Your task to perform on an android device: Open settings Image 0: 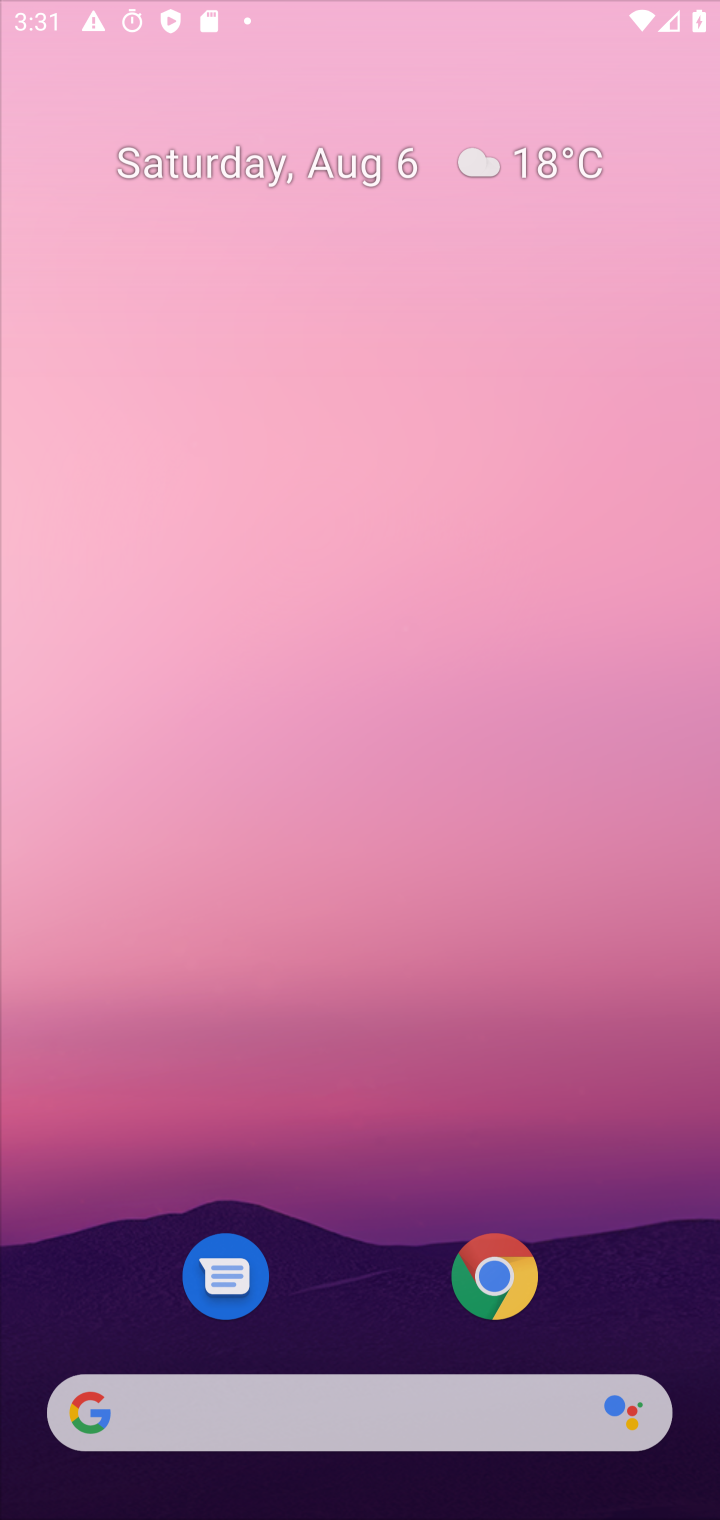
Step 0: press home button
Your task to perform on an android device: Open settings Image 1: 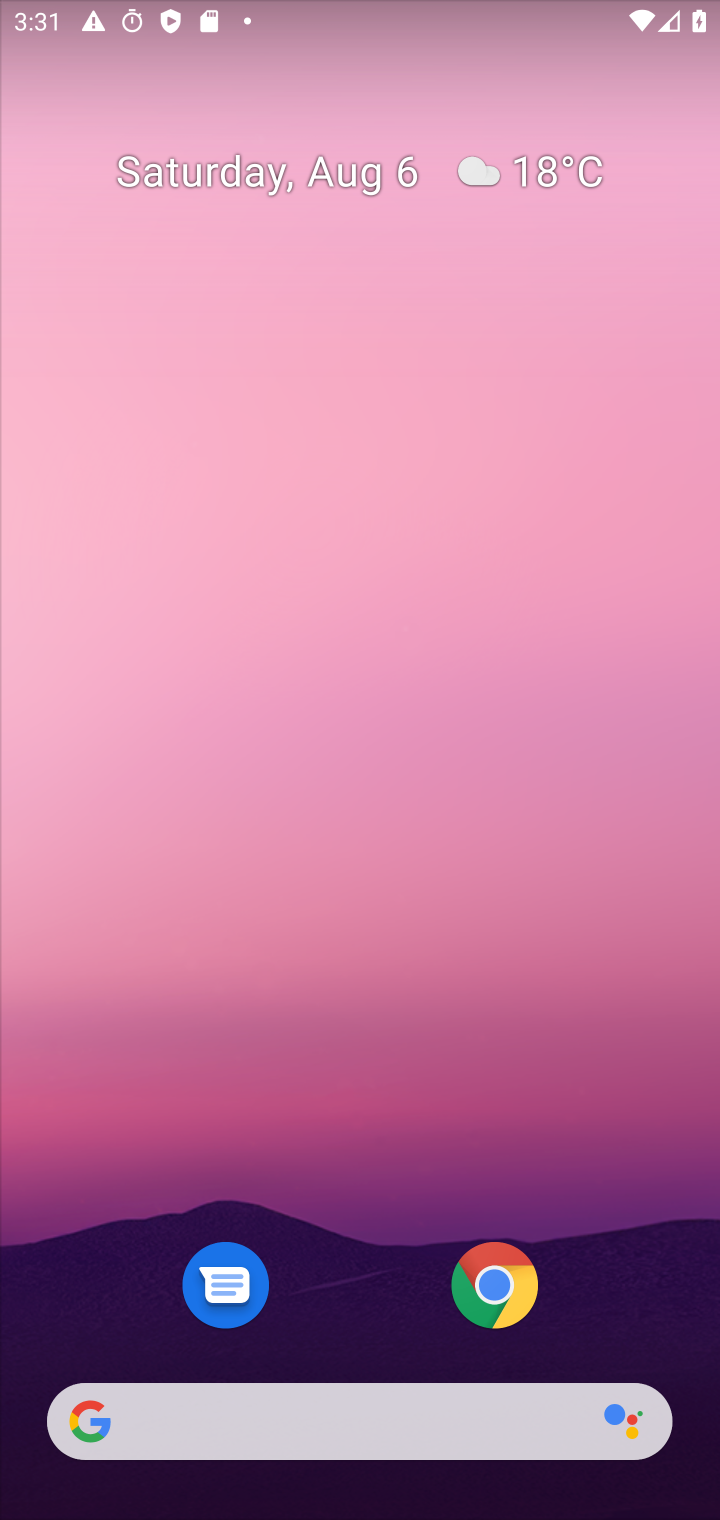
Step 1: drag from (362, 1325) to (336, 278)
Your task to perform on an android device: Open settings Image 2: 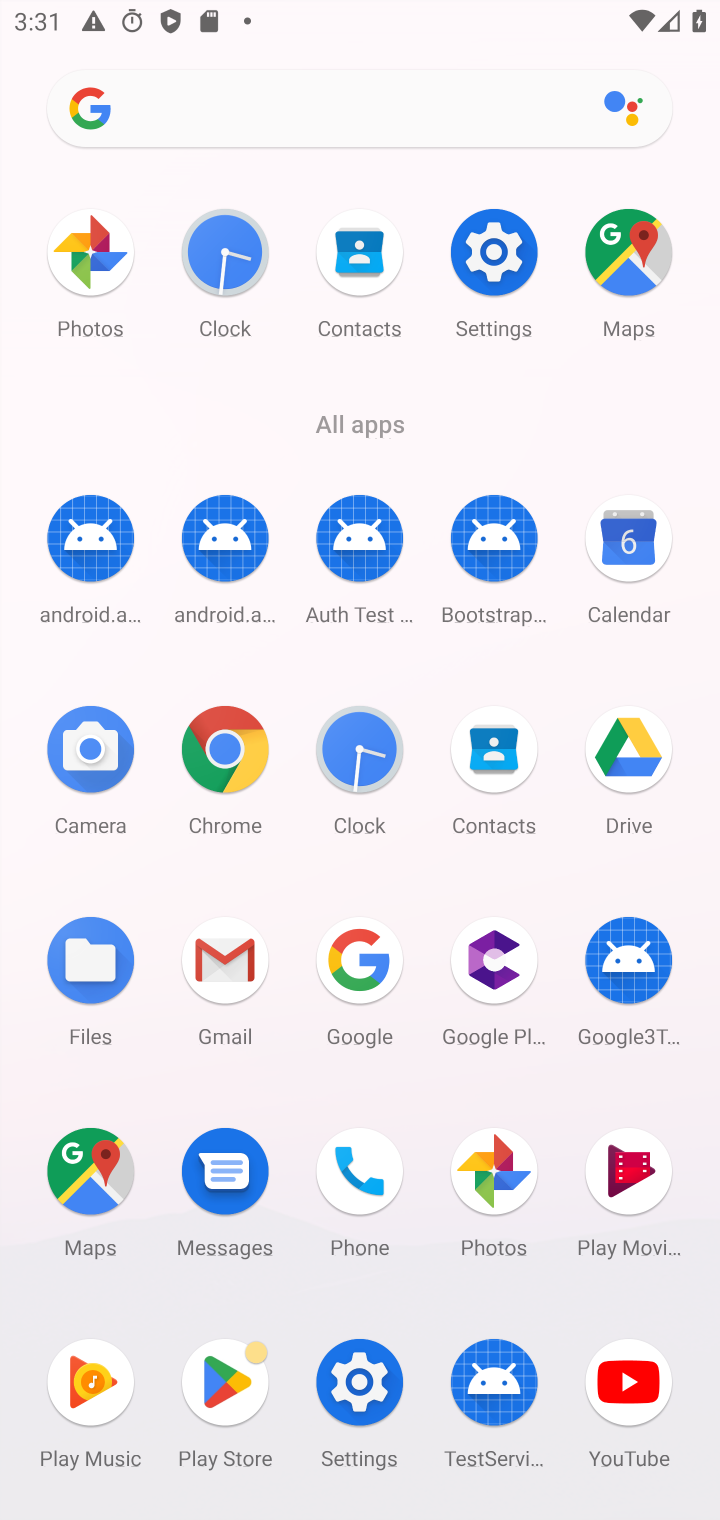
Step 2: click (486, 251)
Your task to perform on an android device: Open settings Image 3: 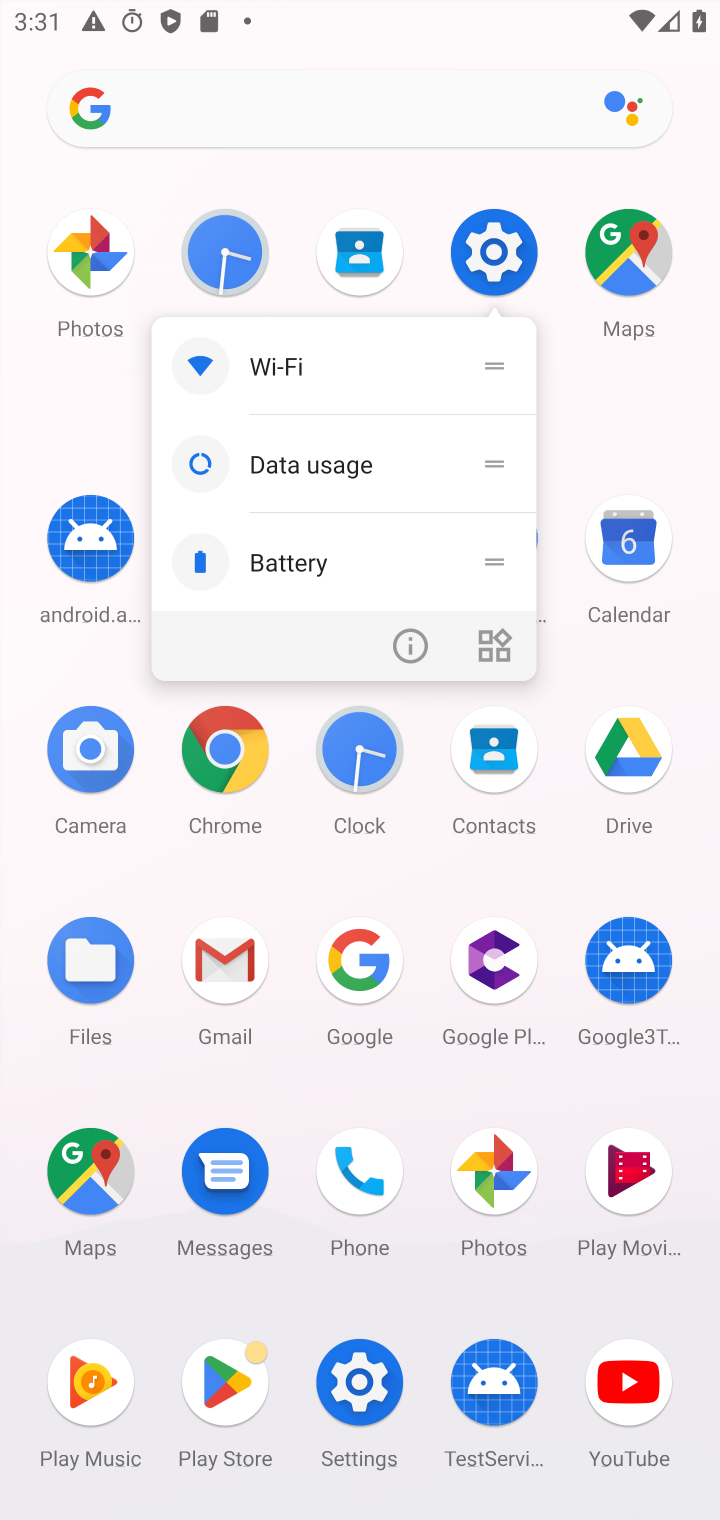
Step 3: click (352, 1367)
Your task to perform on an android device: Open settings Image 4: 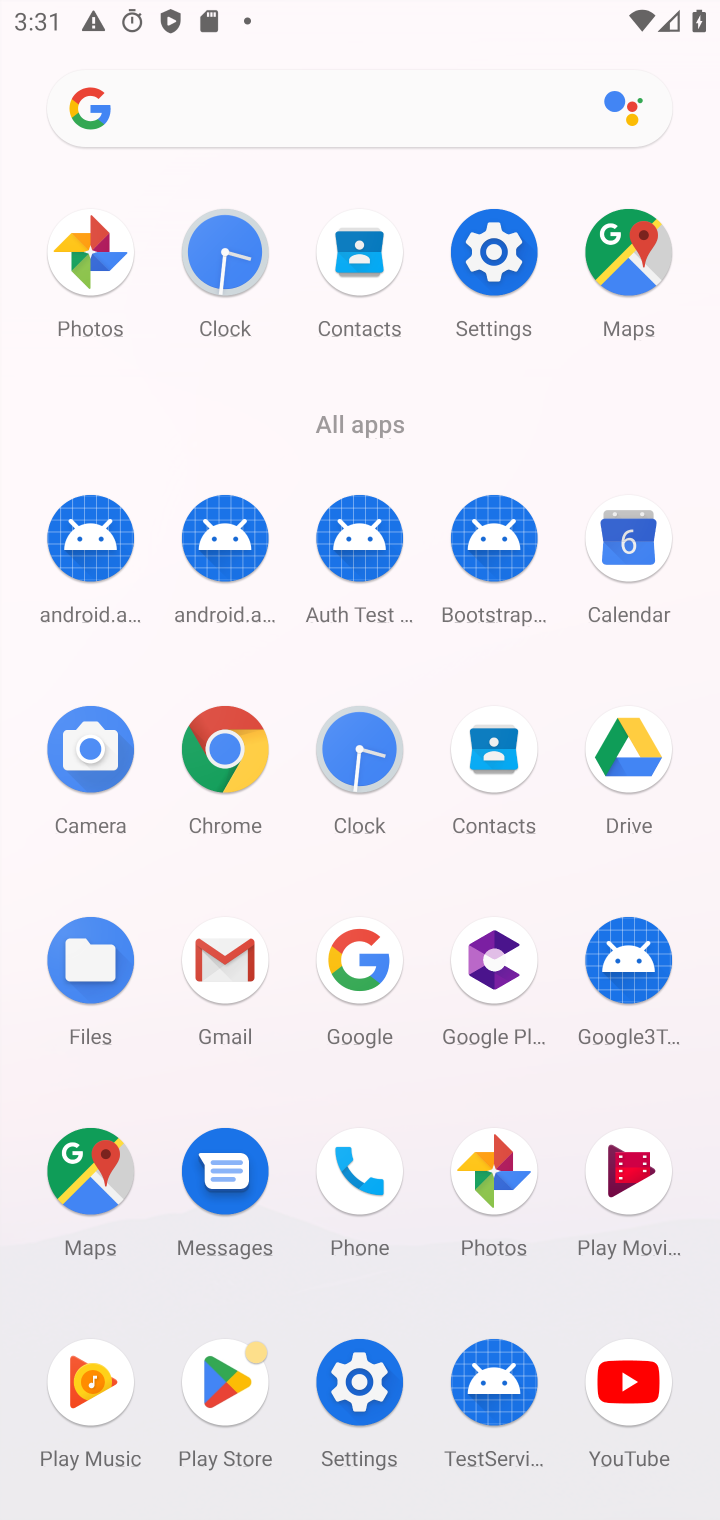
Step 4: click (356, 1356)
Your task to perform on an android device: Open settings Image 5: 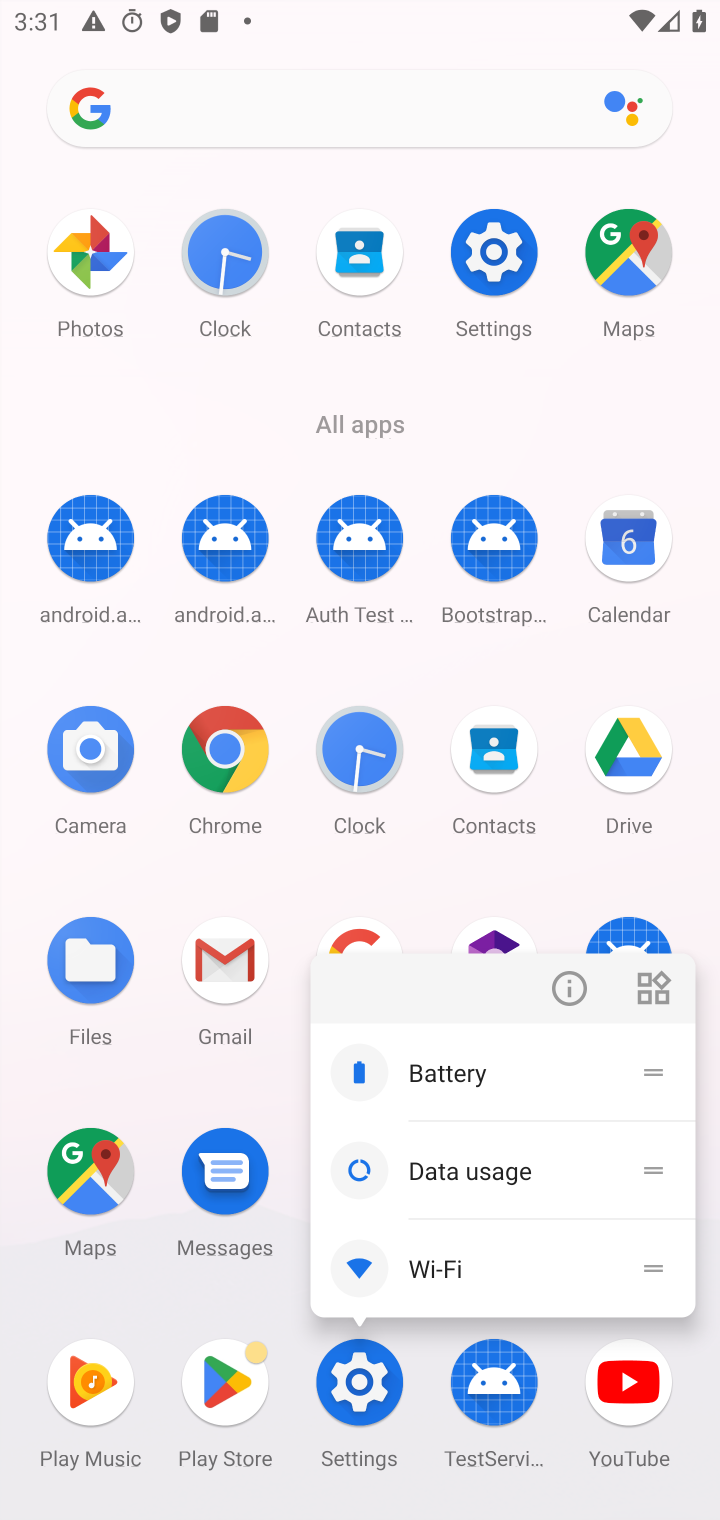
Step 5: click (353, 1369)
Your task to perform on an android device: Open settings Image 6: 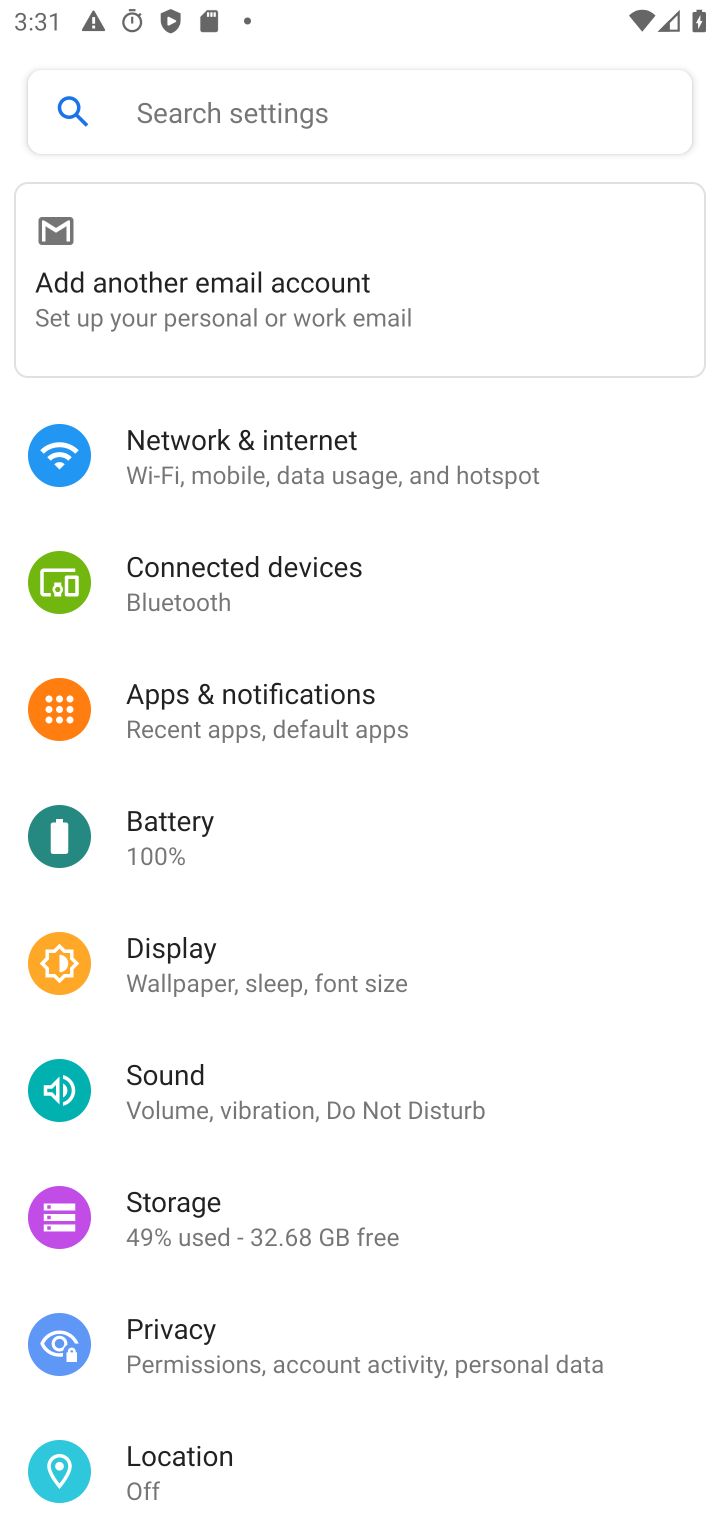
Step 6: task complete